Your task to perform on an android device: turn on priority inbox in the gmail app Image 0: 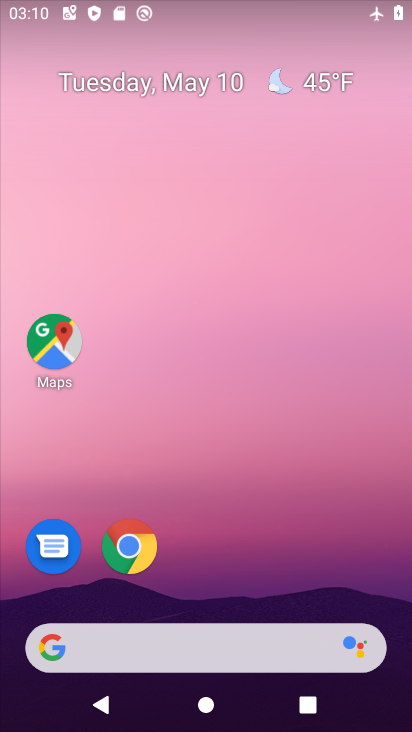
Step 0: drag from (250, 526) to (201, 34)
Your task to perform on an android device: turn on priority inbox in the gmail app Image 1: 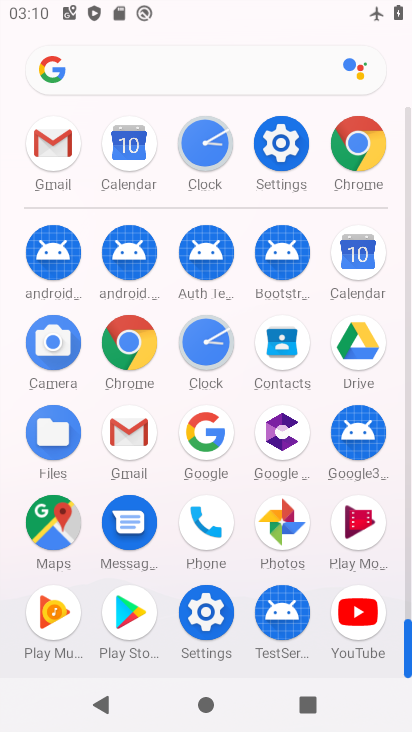
Step 1: drag from (5, 530) to (7, 219)
Your task to perform on an android device: turn on priority inbox in the gmail app Image 2: 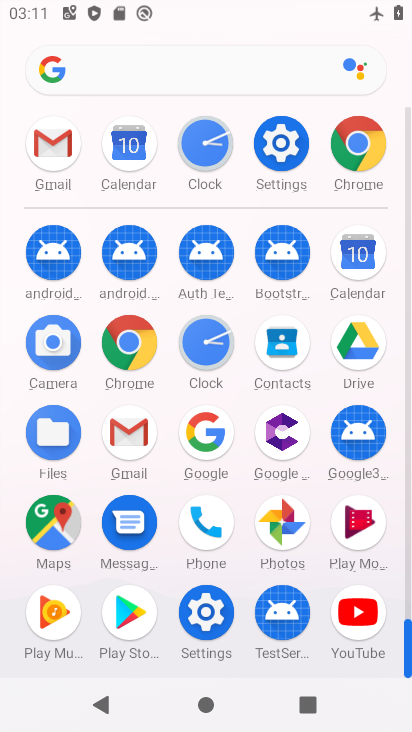
Step 2: click (129, 435)
Your task to perform on an android device: turn on priority inbox in the gmail app Image 3: 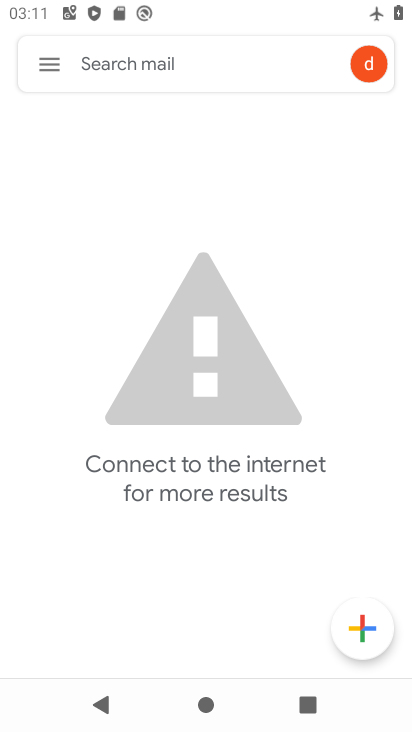
Step 3: click (45, 49)
Your task to perform on an android device: turn on priority inbox in the gmail app Image 4: 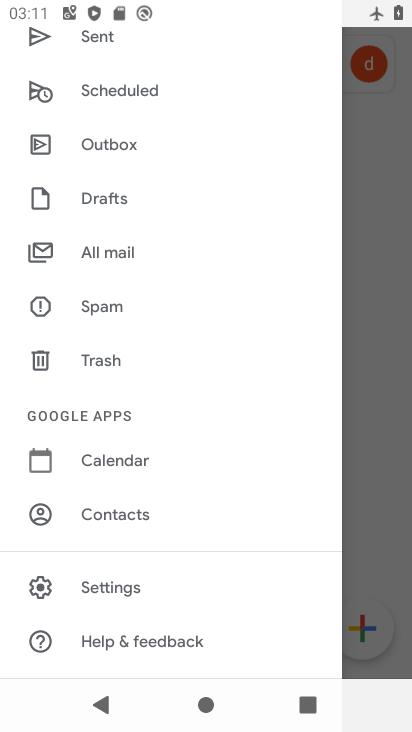
Step 4: click (140, 587)
Your task to perform on an android device: turn on priority inbox in the gmail app Image 5: 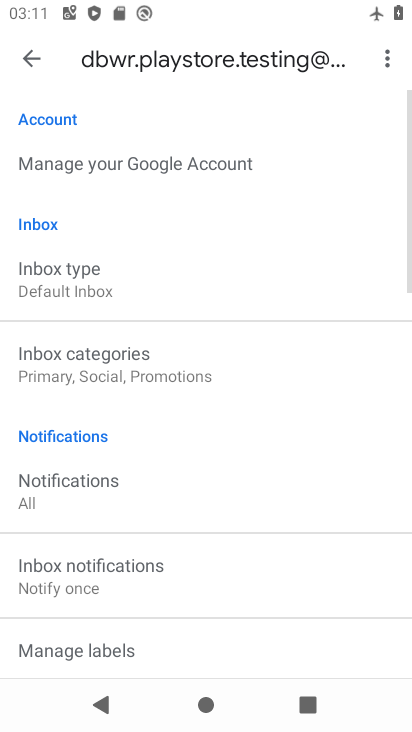
Step 5: drag from (201, 567) to (225, 161)
Your task to perform on an android device: turn on priority inbox in the gmail app Image 6: 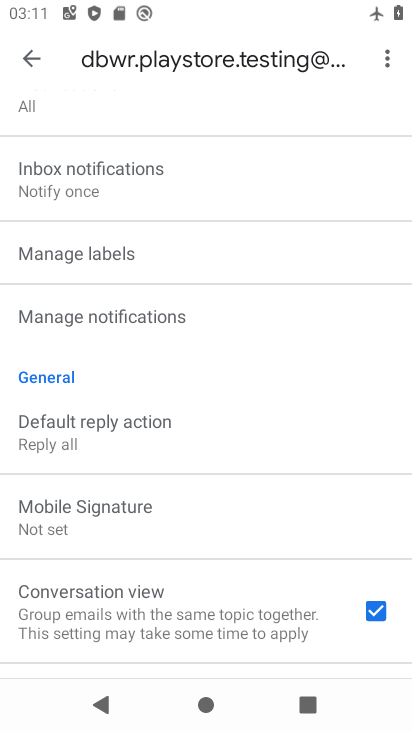
Step 6: drag from (196, 537) to (215, 138)
Your task to perform on an android device: turn on priority inbox in the gmail app Image 7: 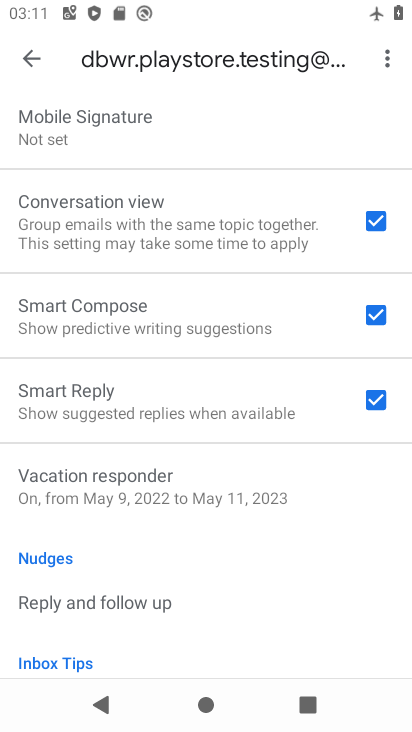
Step 7: drag from (195, 564) to (201, 172)
Your task to perform on an android device: turn on priority inbox in the gmail app Image 8: 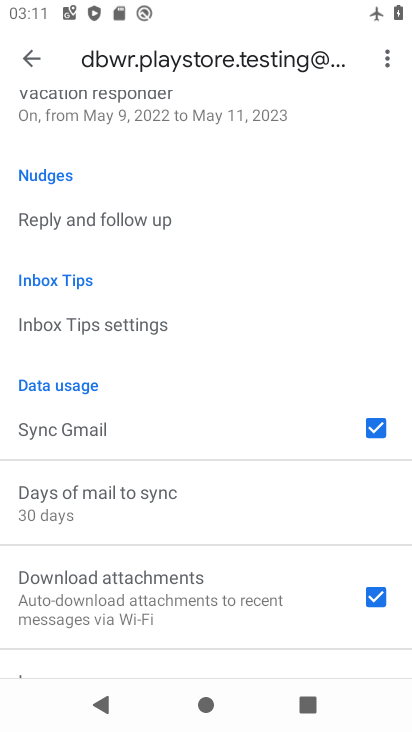
Step 8: drag from (179, 575) to (222, 174)
Your task to perform on an android device: turn on priority inbox in the gmail app Image 9: 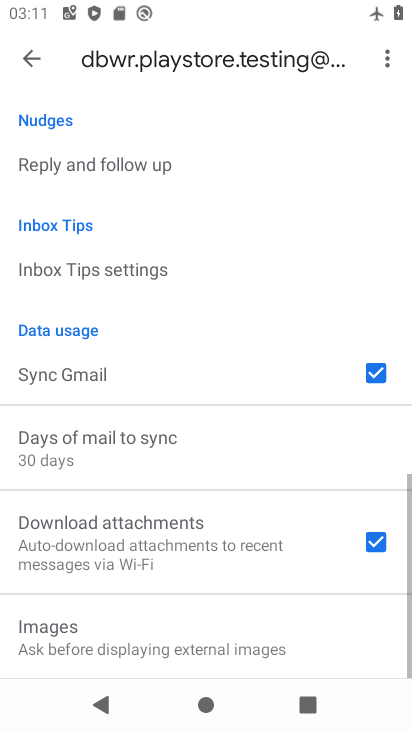
Step 9: drag from (192, 300) to (183, 605)
Your task to perform on an android device: turn on priority inbox in the gmail app Image 10: 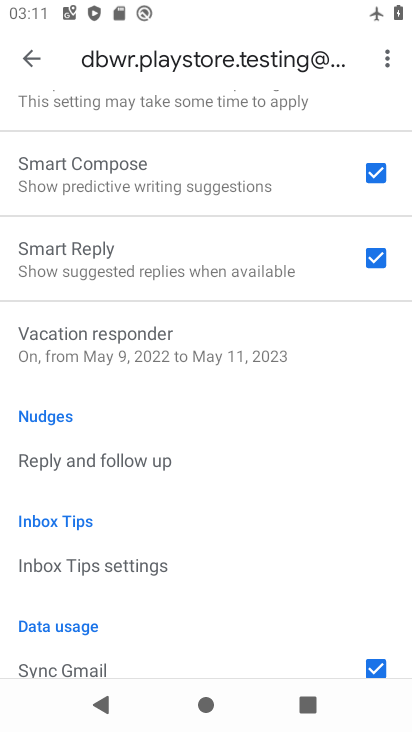
Step 10: drag from (184, 188) to (182, 599)
Your task to perform on an android device: turn on priority inbox in the gmail app Image 11: 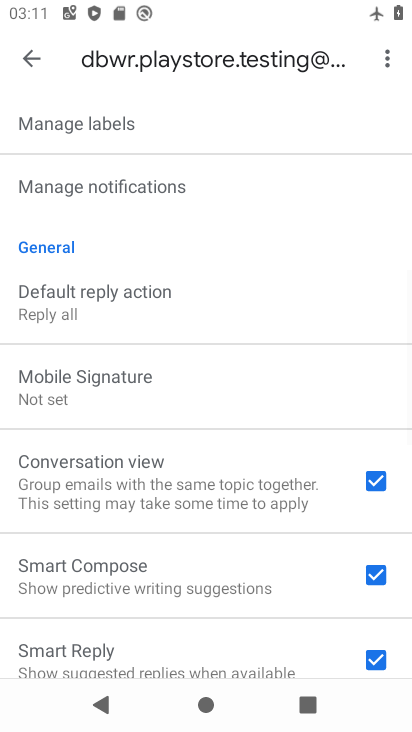
Step 11: drag from (201, 180) to (183, 601)
Your task to perform on an android device: turn on priority inbox in the gmail app Image 12: 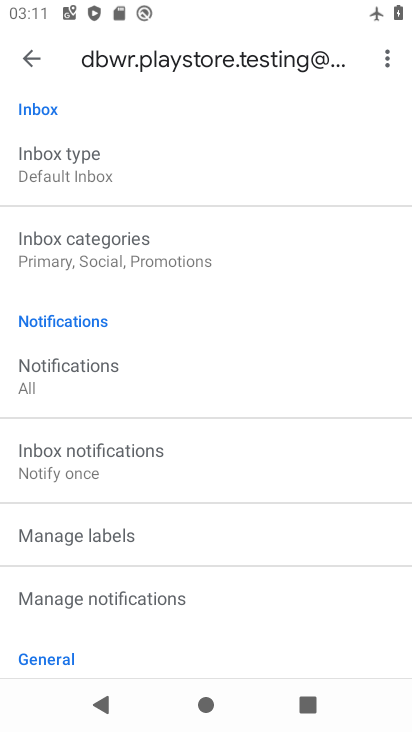
Step 12: drag from (166, 213) to (151, 596)
Your task to perform on an android device: turn on priority inbox in the gmail app Image 13: 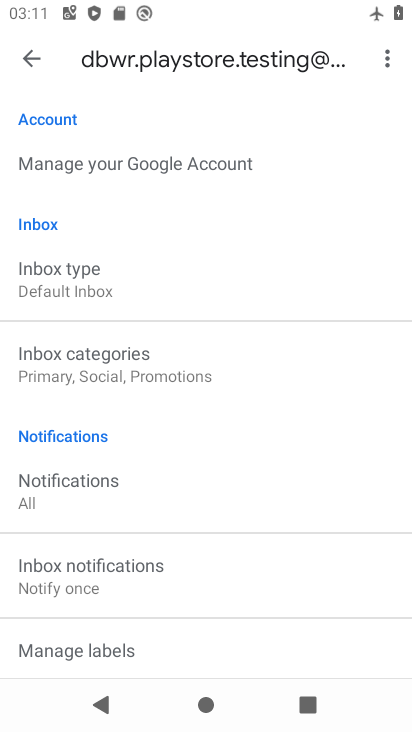
Step 13: click (130, 284)
Your task to perform on an android device: turn on priority inbox in the gmail app Image 14: 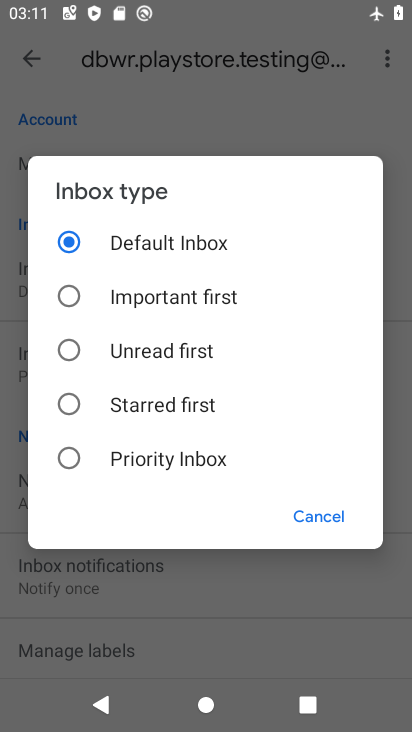
Step 14: click (120, 456)
Your task to perform on an android device: turn on priority inbox in the gmail app Image 15: 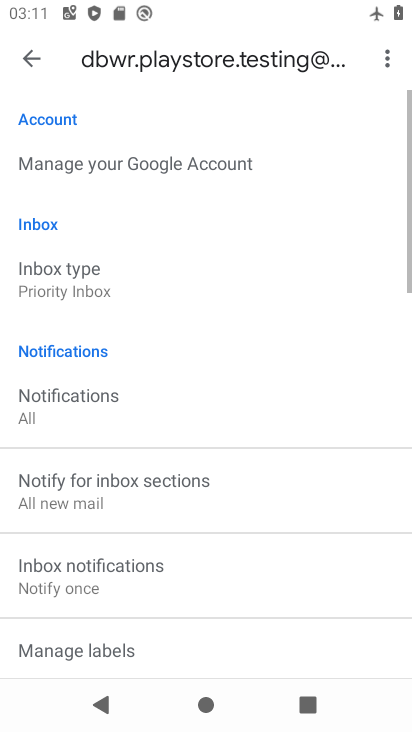
Step 15: task complete